Your task to perform on an android device: read, delete, or share a saved page in the chrome app Image 0: 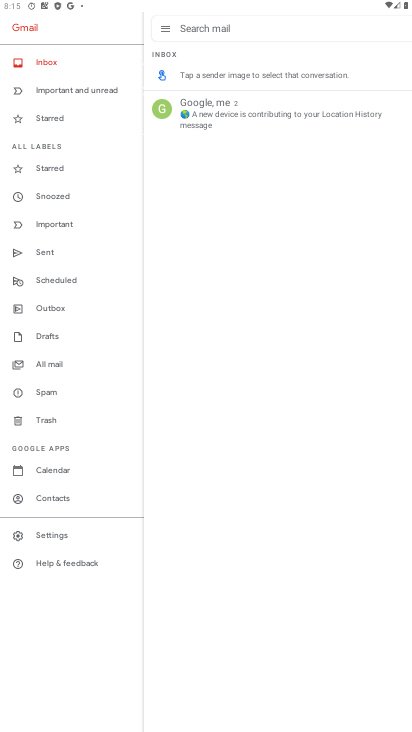
Step 0: press home button
Your task to perform on an android device: read, delete, or share a saved page in the chrome app Image 1: 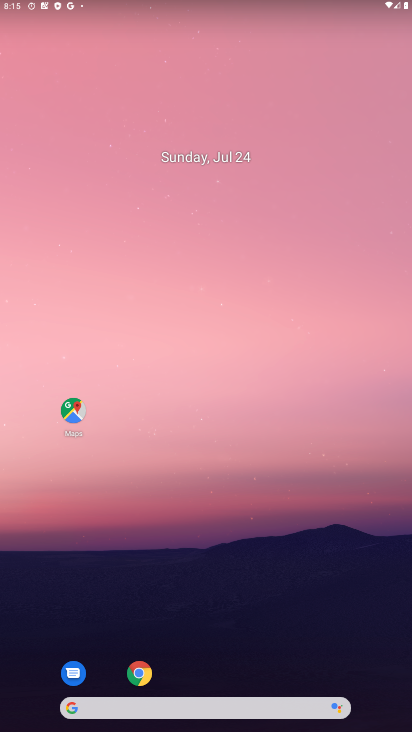
Step 1: click (124, 684)
Your task to perform on an android device: read, delete, or share a saved page in the chrome app Image 2: 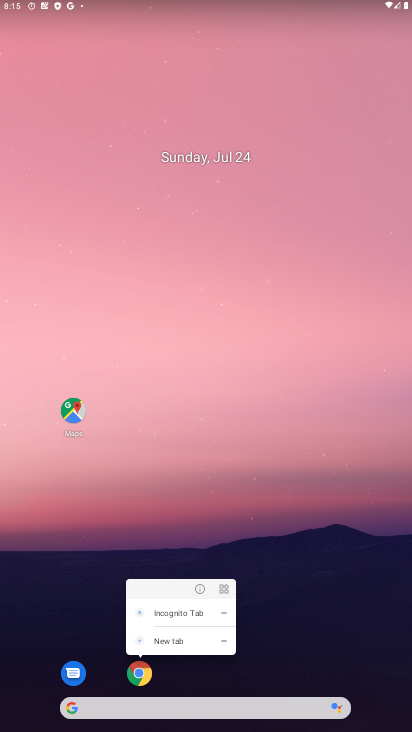
Step 2: click (142, 680)
Your task to perform on an android device: read, delete, or share a saved page in the chrome app Image 3: 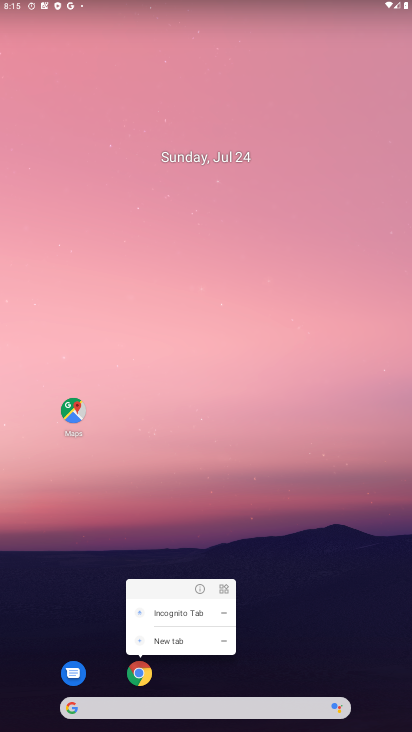
Step 3: click (143, 678)
Your task to perform on an android device: read, delete, or share a saved page in the chrome app Image 4: 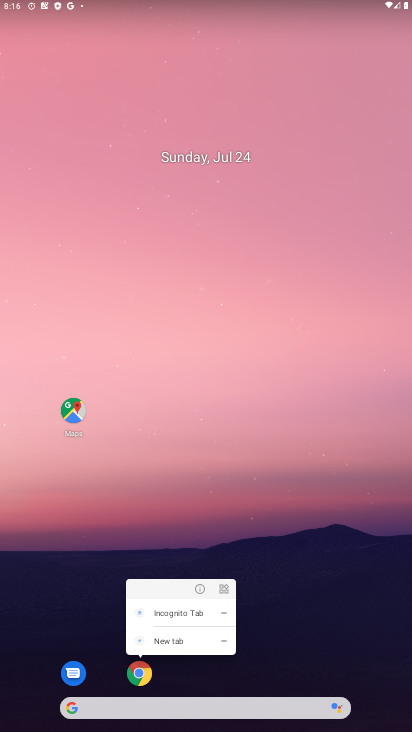
Step 4: click (143, 668)
Your task to perform on an android device: read, delete, or share a saved page in the chrome app Image 5: 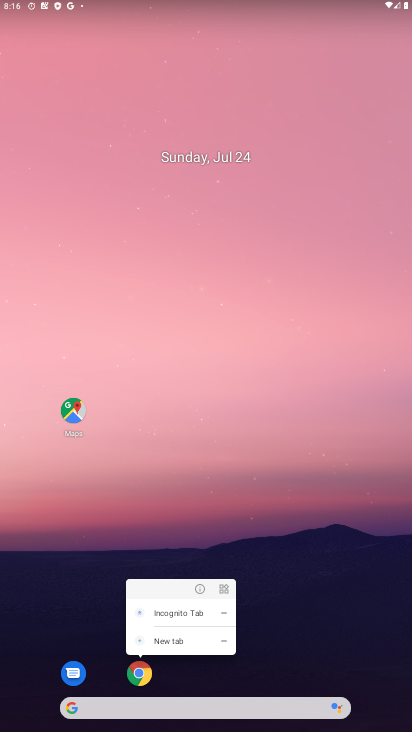
Step 5: click (142, 672)
Your task to perform on an android device: read, delete, or share a saved page in the chrome app Image 6: 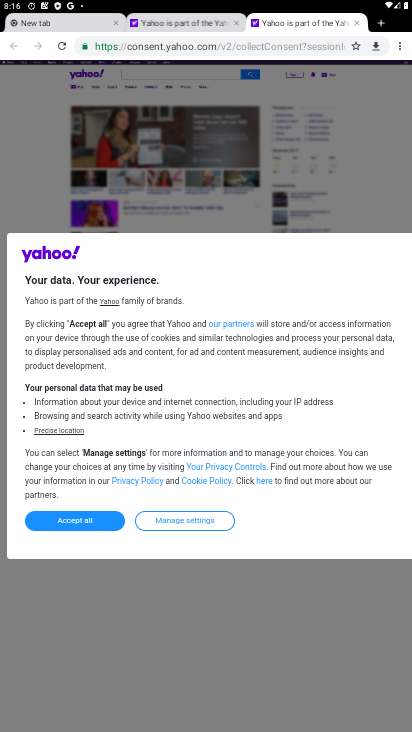
Step 6: click (397, 42)
Your task to perform on an android device: read, delete, or share a saved page in the chrome app Image 7: 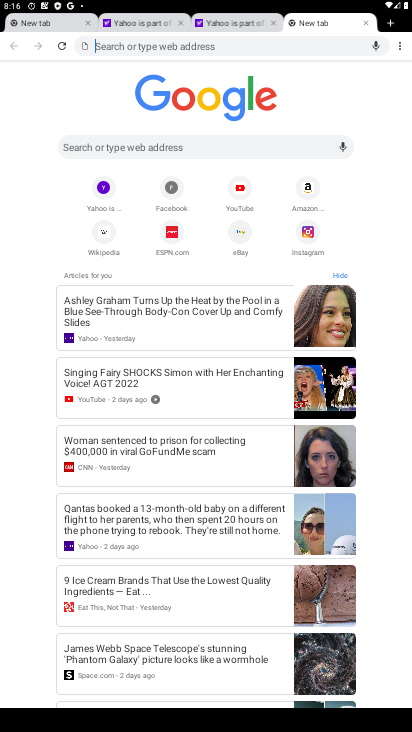
Step 7: click (396, 42)
Your task to perform on an android device: read, delete, or share a saved page in the chrome app Image 8: 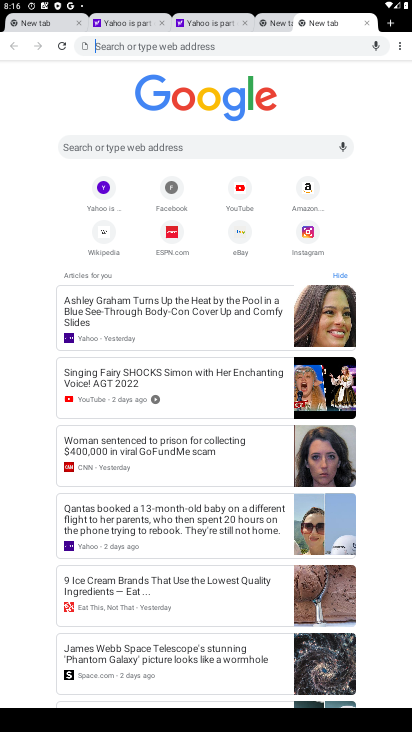
Step 8: task complete